Your task to perform on an android device: open sync settings in chrome Image 0: 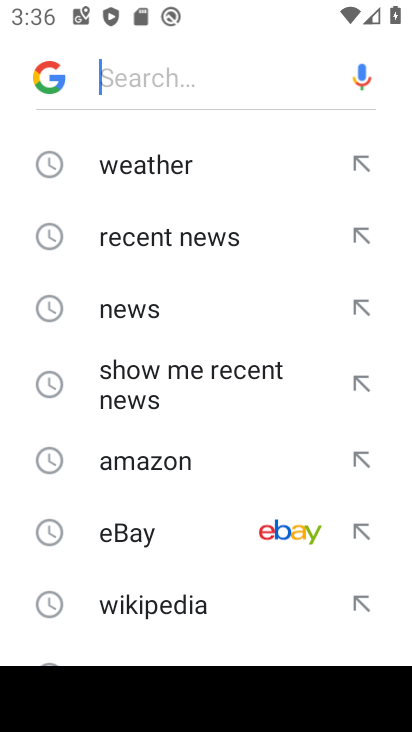
Step 0: press home button
Your task to perform on an android device: open sync settings in chrome Image 1: 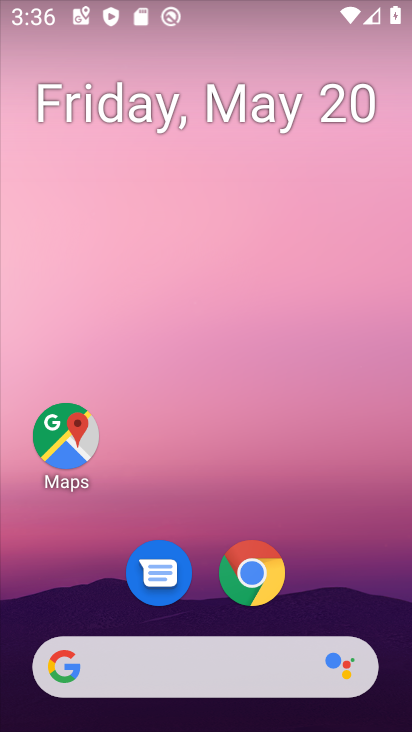
Step 1: click (252, 568)
Your task to perform on an android device: open sync settings in chrome Image 2: 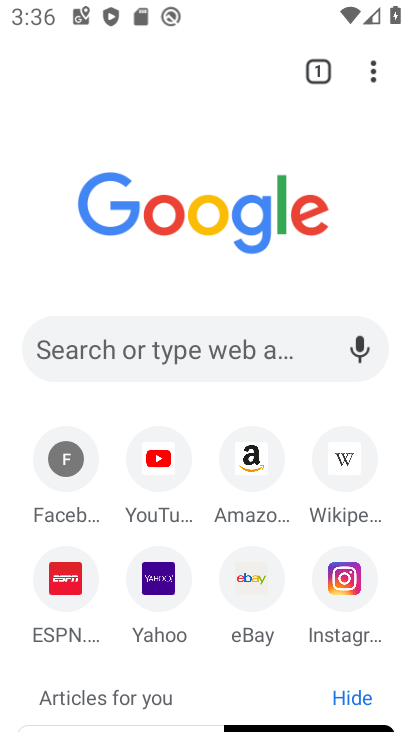
Step 2: click (369, 74)
Your task to perform on an android device: open sync settings in chrome Image 3: 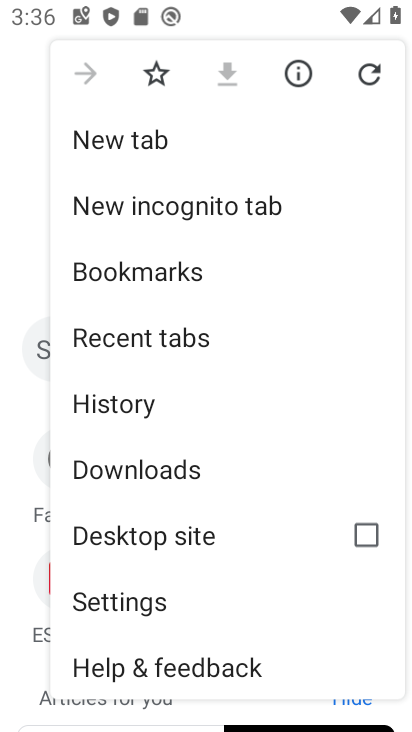
Step 3: click (131, 600)
Your task to perform on an android device: open sync settings in chrome Image 4: 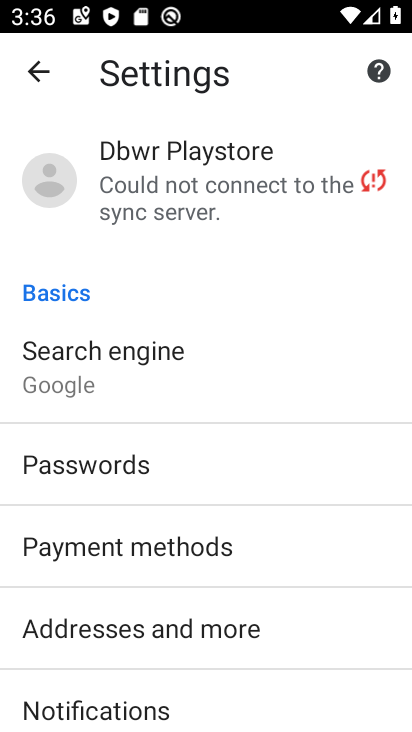
Step 4: click (158, 177)
Your task to perform on an android device: open sync settings in chrome Image 5: 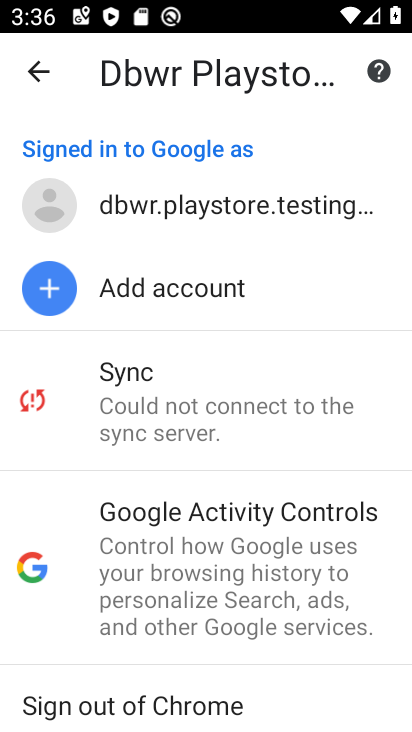
Step 5: click (140, 415)
Your task to perform on an android device: open sync settings in chrome Image 6: 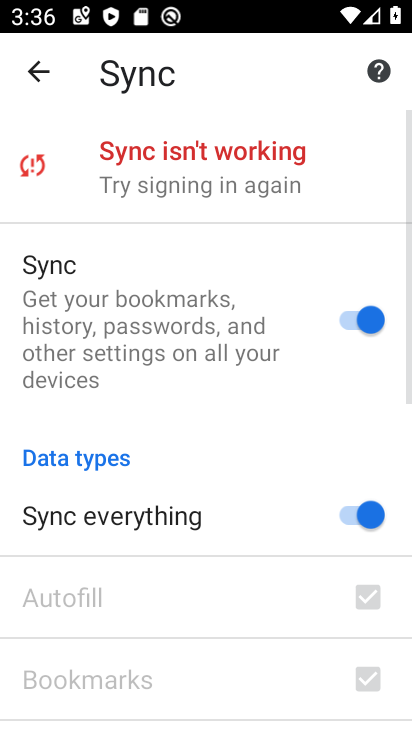
Step 6: task complete